Your task to perform on an android device: Open settings on Google Maps Image 0: 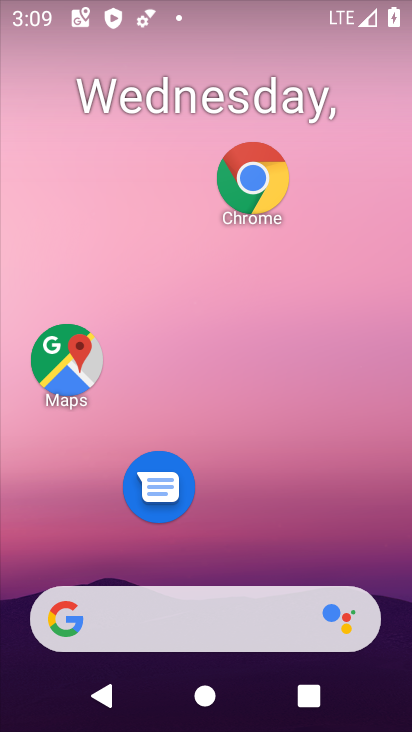
Step 0: drag from (237, 539) to (239, 57)
Your task to perform on an android device: Open settings on Google Maps Image 1: 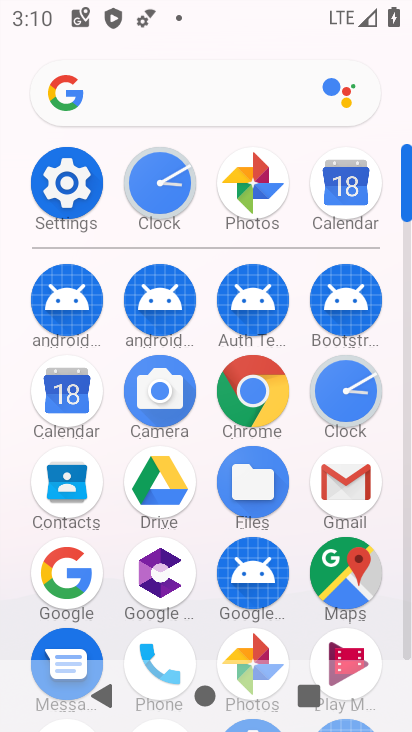
Step 1: click (346, 577)
Your task to perform on an android device: Open settings on Google Maps Image 2: 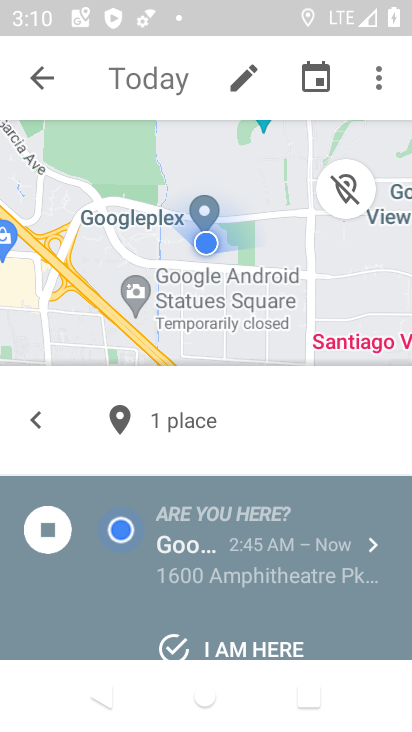
Step 2: click (49, 81)
Your task to perform on an android device: Open settings on Google Maps Image 3: 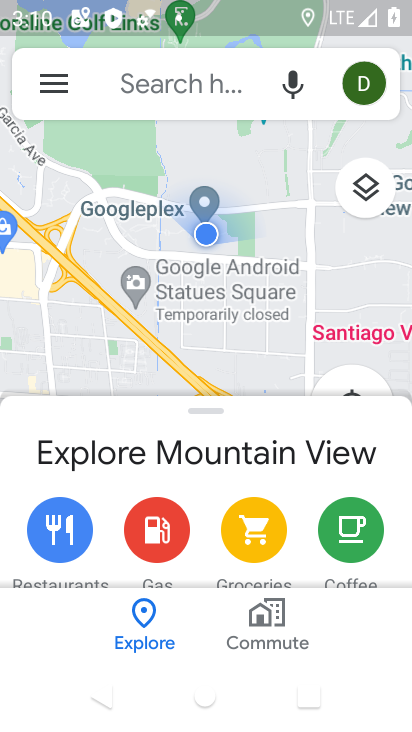
Step 3: click (62, 74)
Your task to perform on an android device: Open settings on Google Maps Image 4: 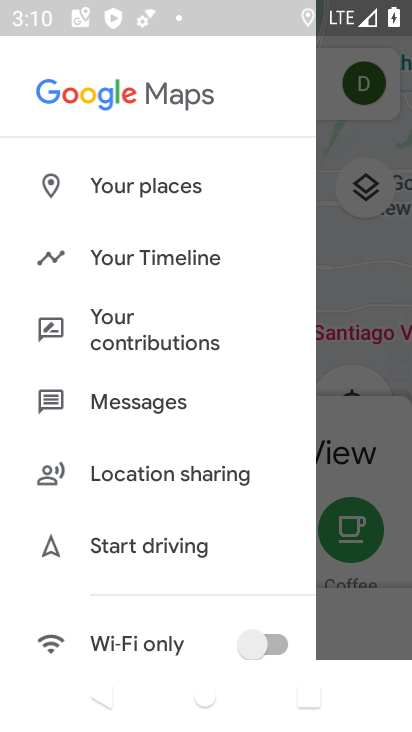
Step 4: drag from (146, 620) to (156, 296)
Your task to perform on an android device: Open settings on Google Maps Image 5: 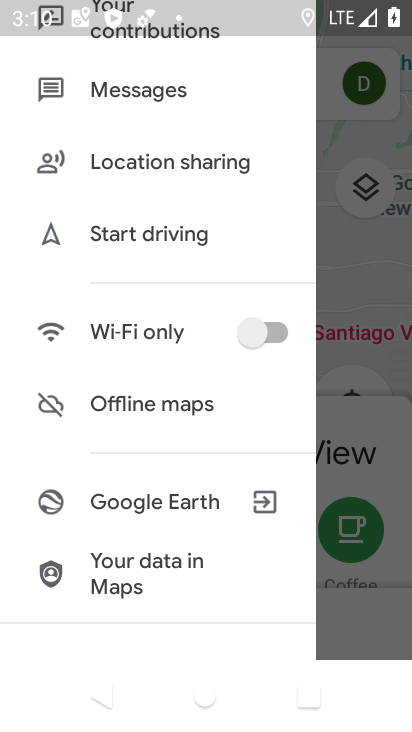
Step 5: drag from (154, 551) to (141, 241)
Your task to perform on an android device: Open settings on Google Maps Image 6: 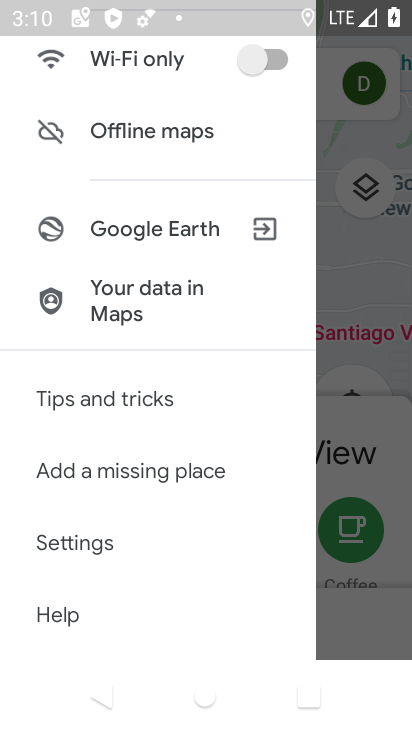
Step 6: click (110, 534)
Your task to perform on an android device: Open settings on Google Maps Image 7: 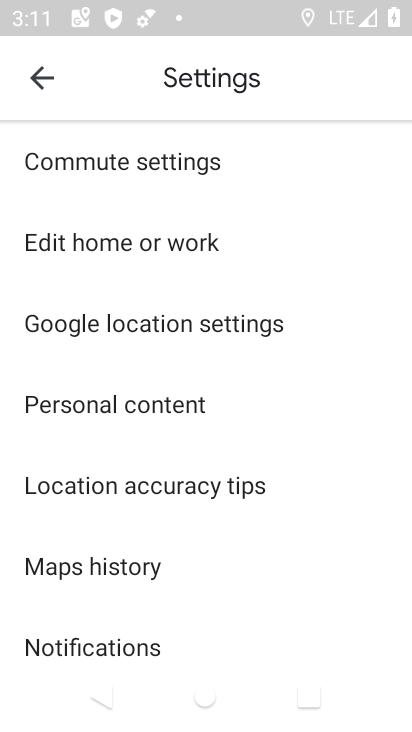
Step 7: task complete